Your task to perform on an android device: uninstall "Google Play Music" Image 0: 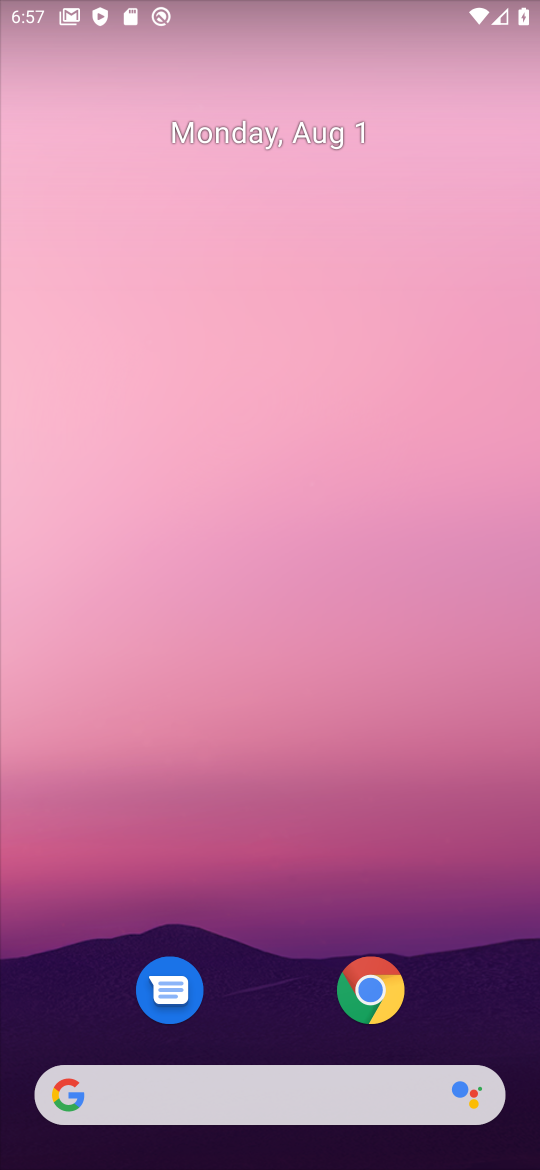
Step 0: drag from (327, 1103) to (415, 429)
Your task to perform on an android device: uninstall "Google Play Music" Image 1: 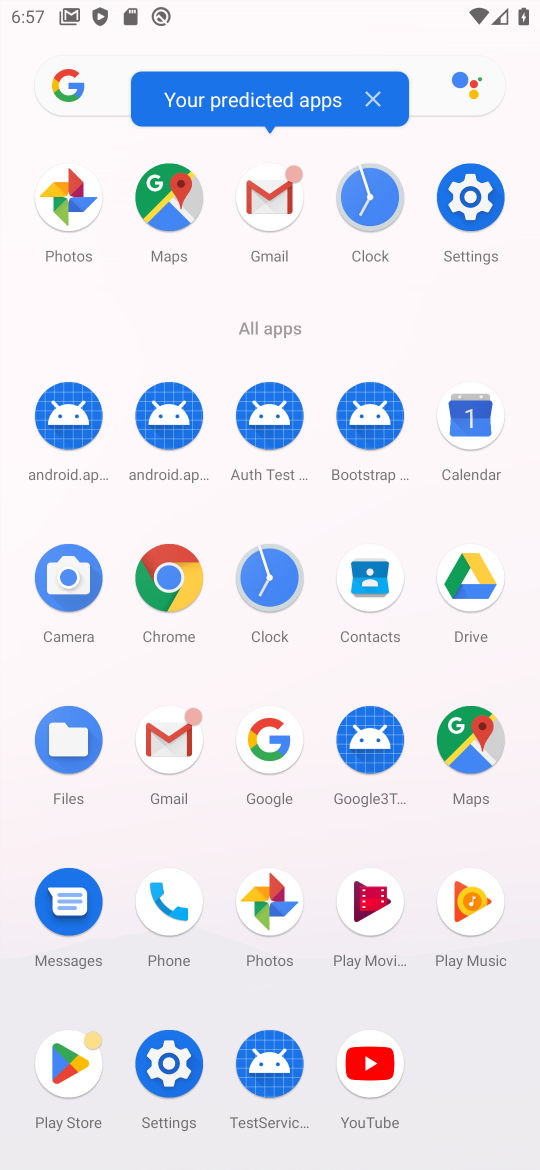
Step 1: click (94, 1054)
Your task to perform on an android device: uninstall "Google Play Music" Image 2: 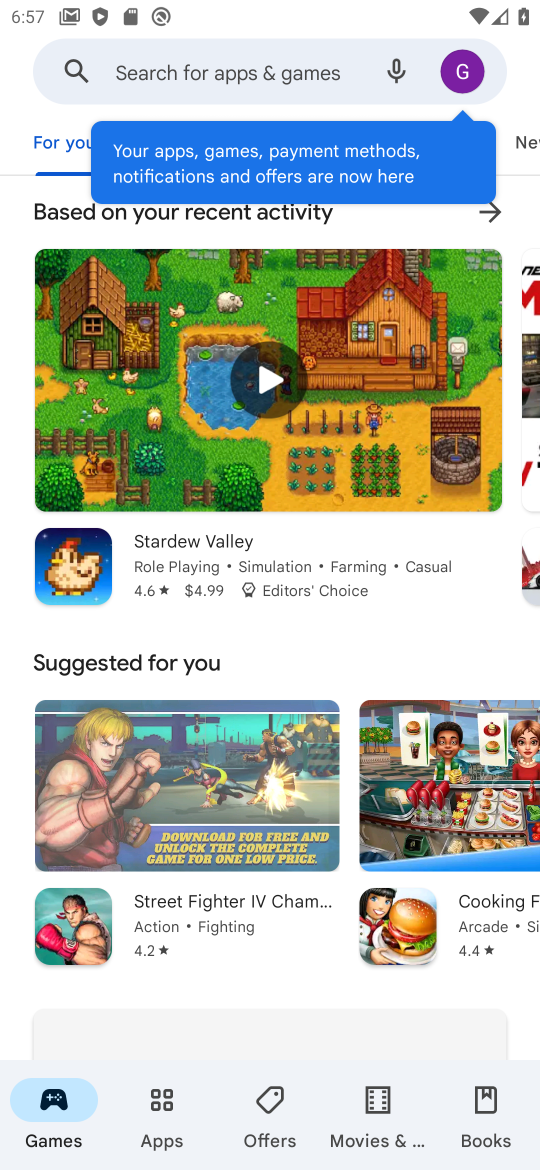
Step 2: click (255, 77)
Your task to perform on an android device: uninstall "Google Play Music" Image 3: 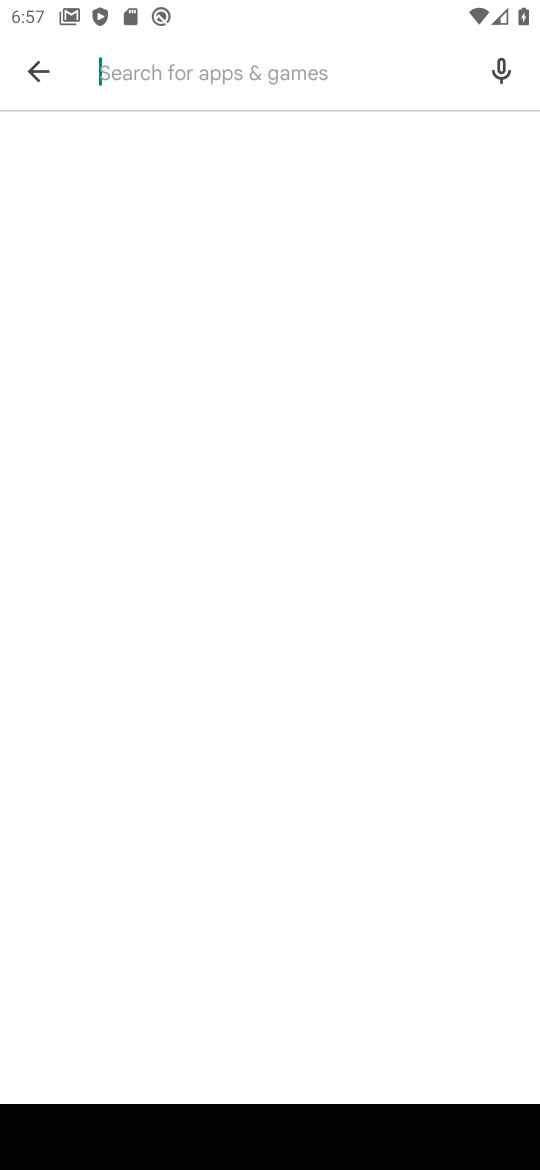
Step 3: click (447, 1074)
Your task to perform on an android device: uninstall "Google Play Music" Image 4: 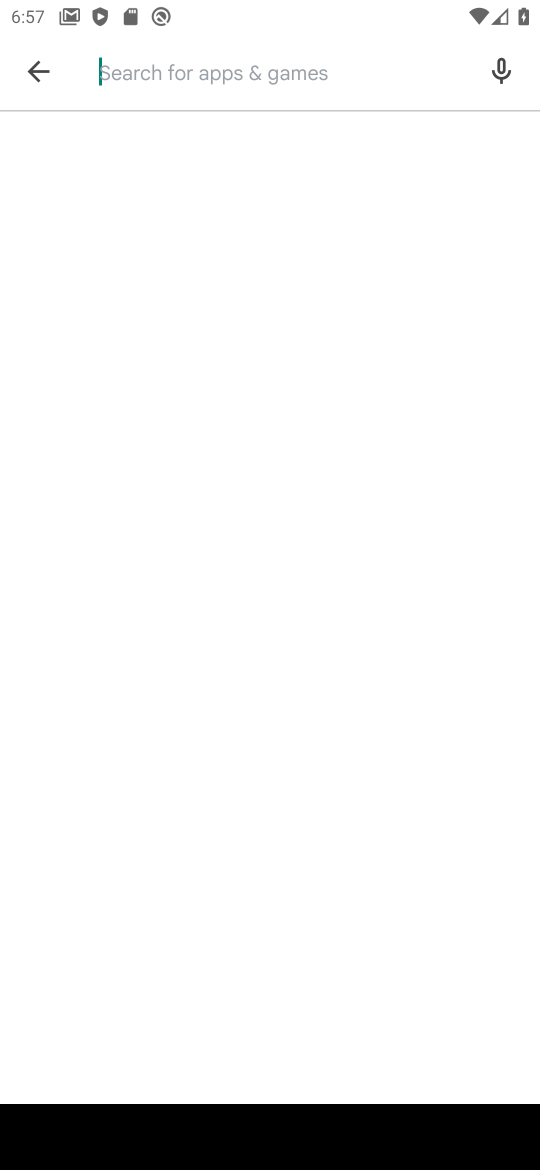
Step 4: click (155, 53)
Your task to perform on an android device: uninstall "Google Play Music" Image 5: 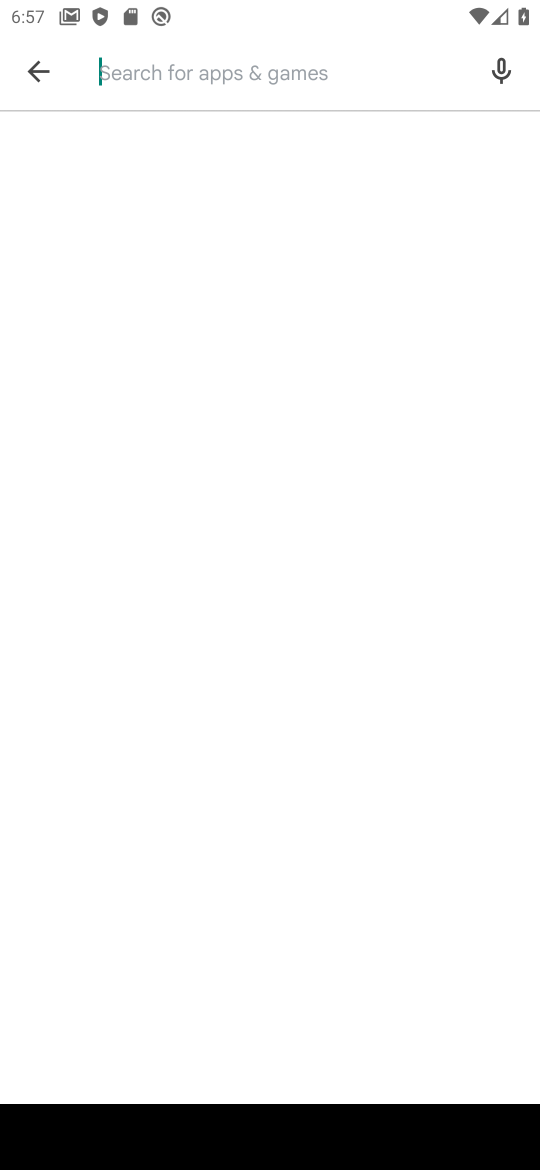
Step 5: drag from (447, 1151) to (455, 1026)
Your task to perform on an android device: uninstall "Google Play Music" Image 6: 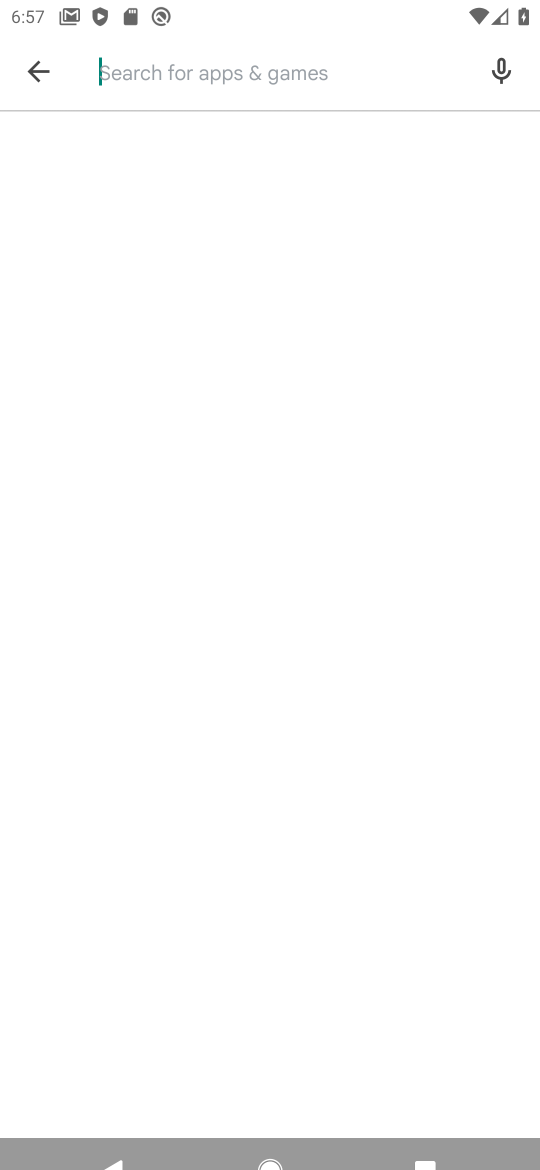
Step 6: click (172, 71)
Your task to perform on an android device: uninstall "Google Play Music" Image 7: 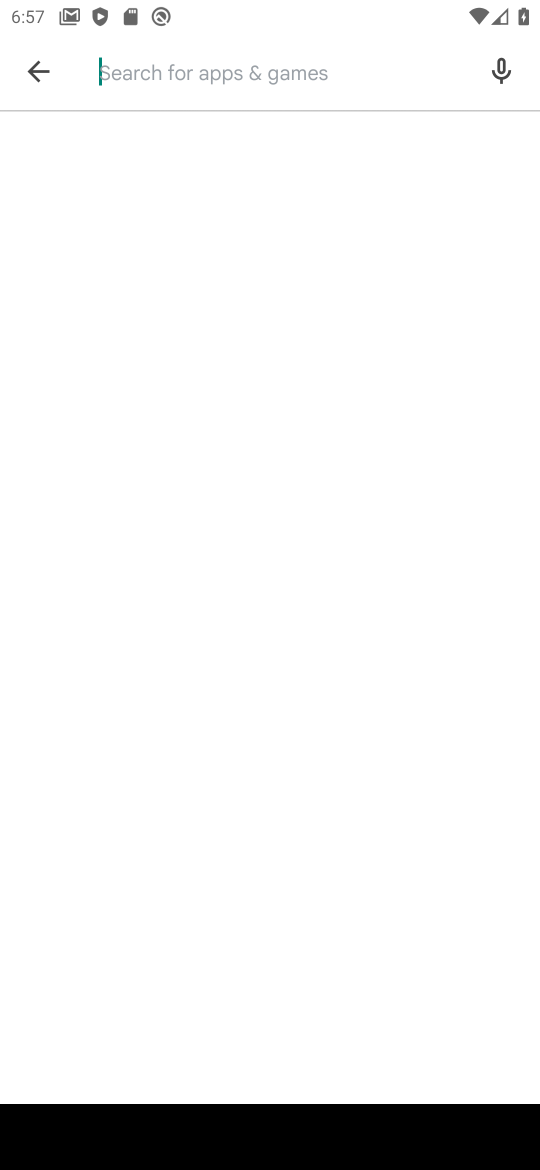
Step 7: click (481, 1152)
Your task to perform on an android device: uninstall "Google Play Music" Image 8: 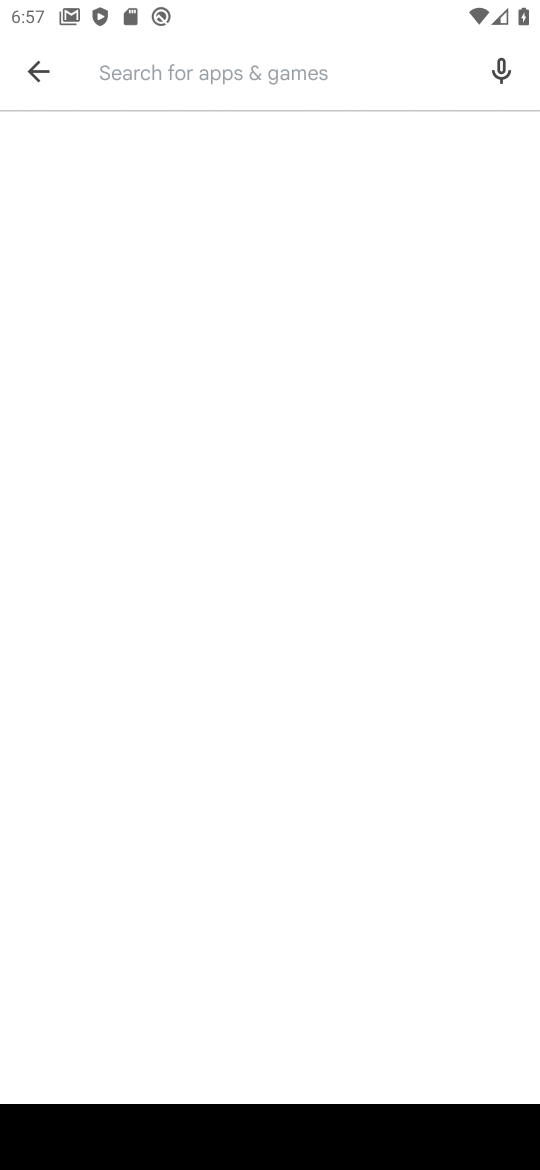
Step 8: click (464, 1145)
Your task to perform on an android device: uninstall "Google Play Music" Image 9: 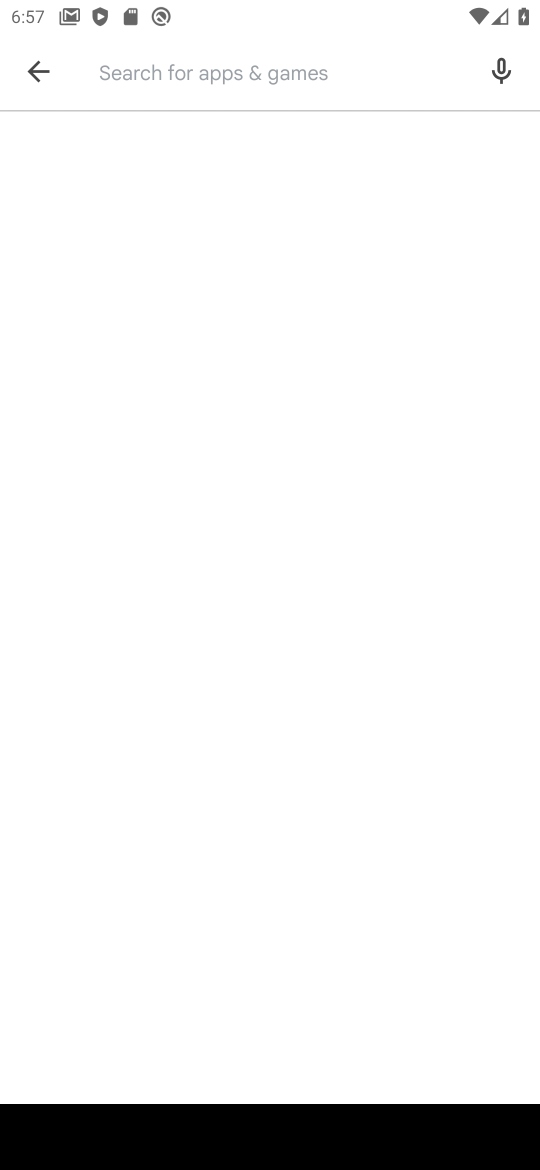
Step 9: type "google play music"
Your task to perform on an android device: uninstall "Google Play Music" Image 10: 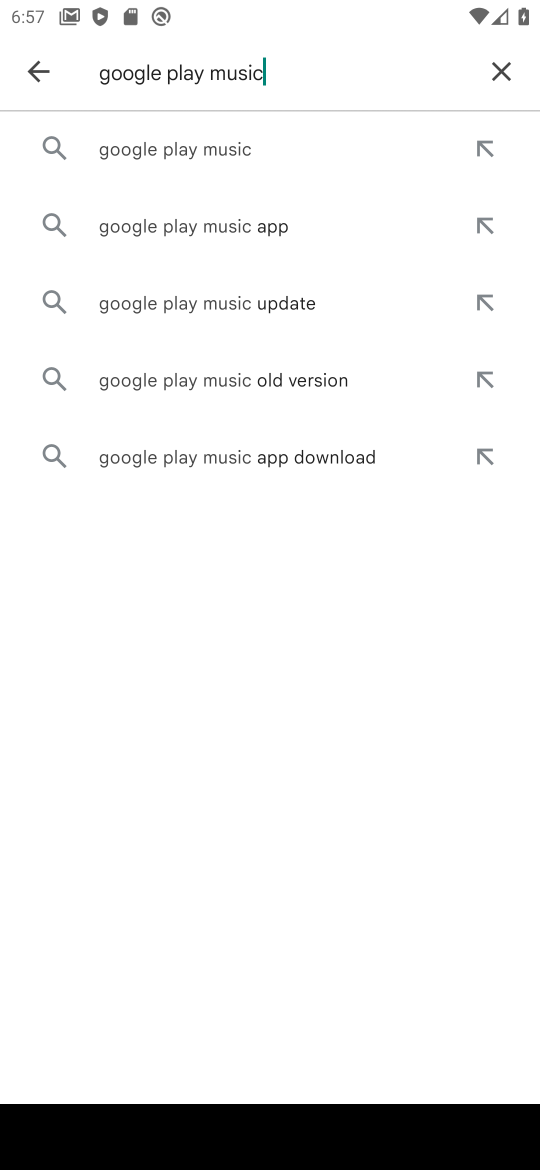
Step 10: click (241, 137)
Your task to perform on an android device: uninstall "Google Play Music" Image 11: 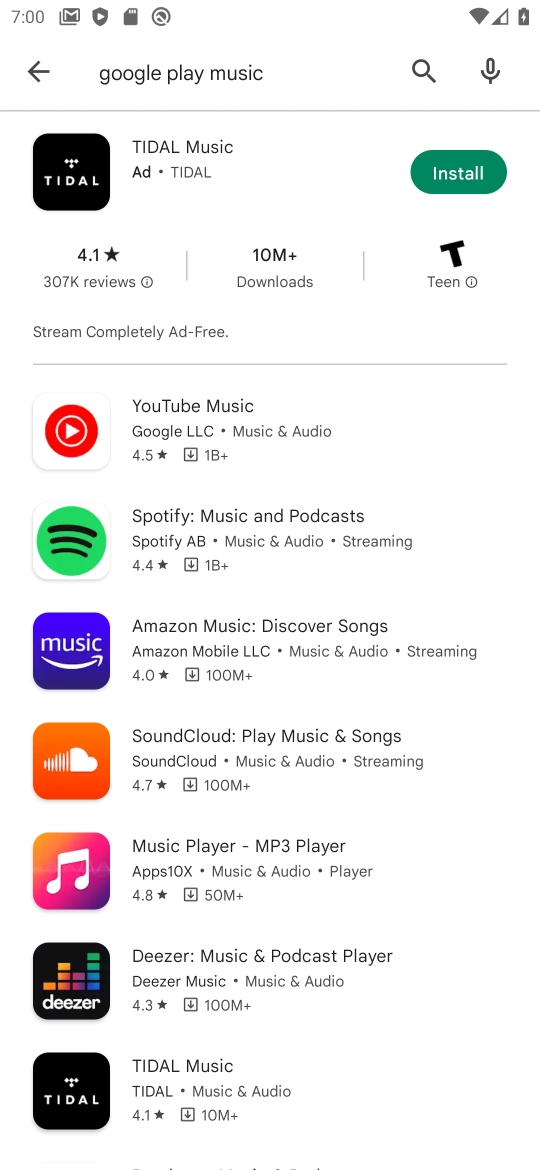
Step 11: task complete